Your task to perform on an android device: change notifications settings Image 0: 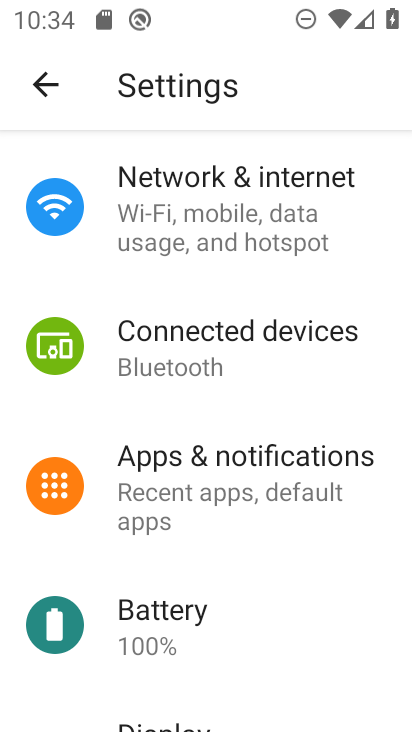
Step 0: click (206, 511)
Your task to perform on an android device: change notifications settings Image 1: 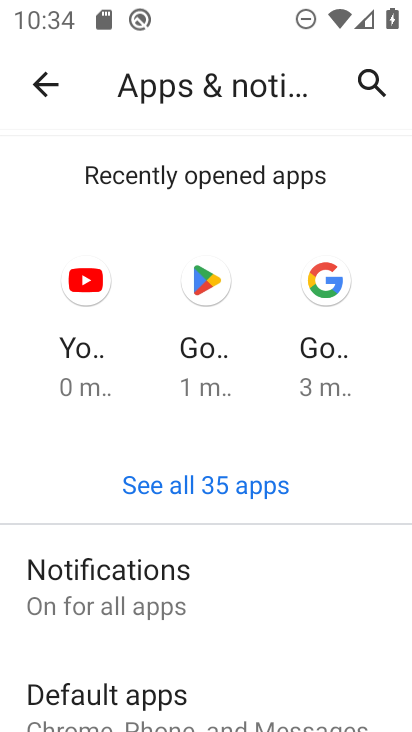
Step 1: click (138, 553)
Your task to perform on an android device: change notifications settings Image 2: 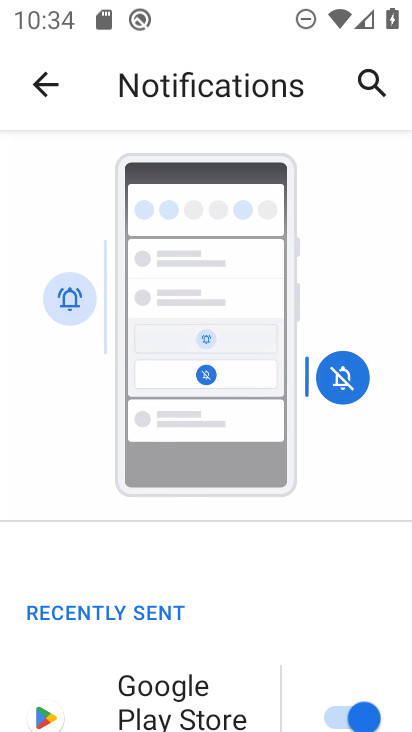
Step 2: task complete